Your task to perform on an android device: find snoozed emails in the gmail app Image 0: 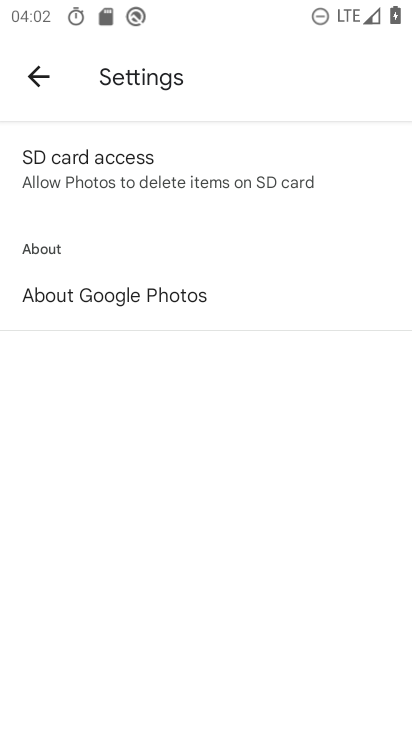
Step 0: press home button
Your task to perform on an android device: find snoozed emails in the gmail app Image 1: 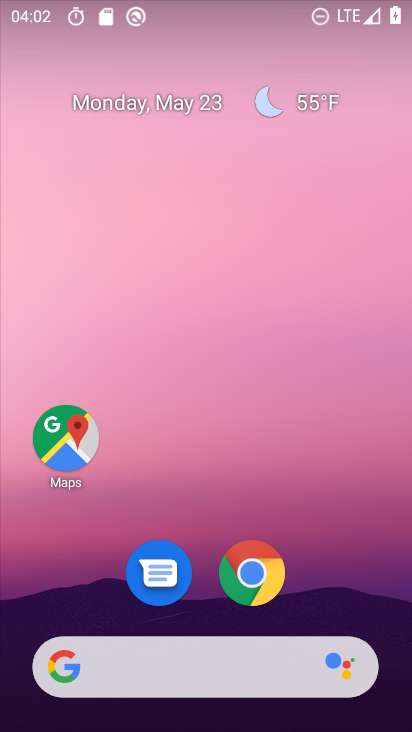
Step 1: drag from (342, 556) to (291, 94)
Your task to perform on an android device: find snoozed emails in the gmail app Image 2: 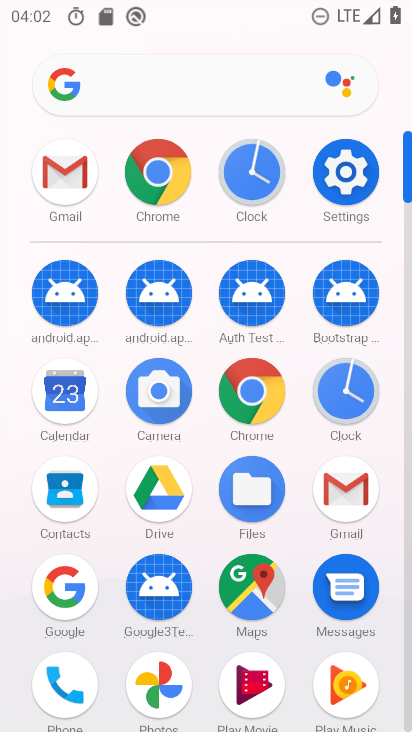
Step 2: click (59, 178)
Your task to perform on an android device: find snoozed emails in the gmail app Image 3: 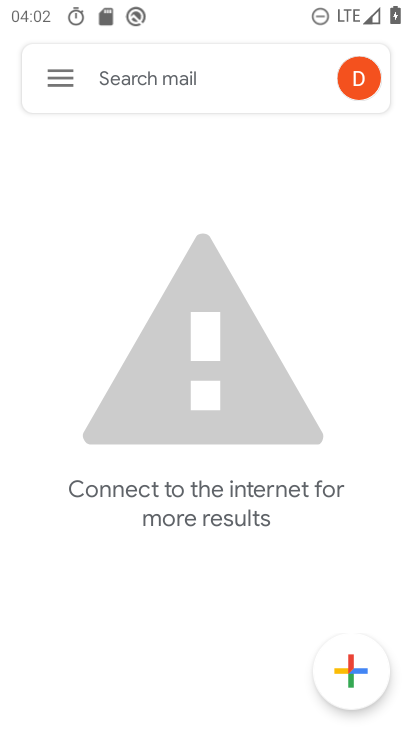
Step 3: click (67, 79)
Your task to perform on an android device: find snoozed emails in the gmail app Image 4: 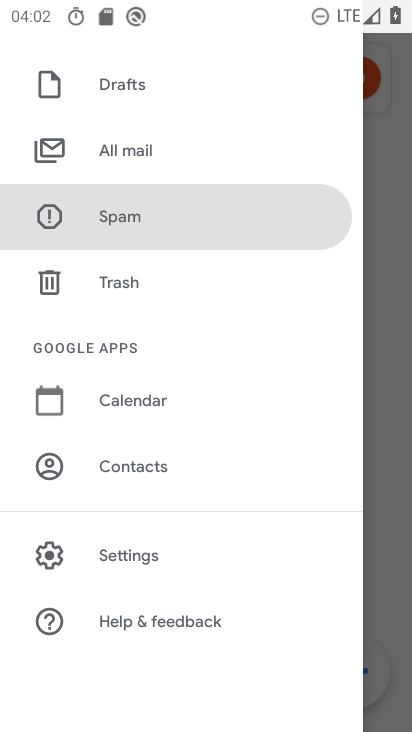
Step 4: drag from (177, 143) to (162, 501)
Your task to perform on an android device: find snoozed emails in the gmail app Image 5: 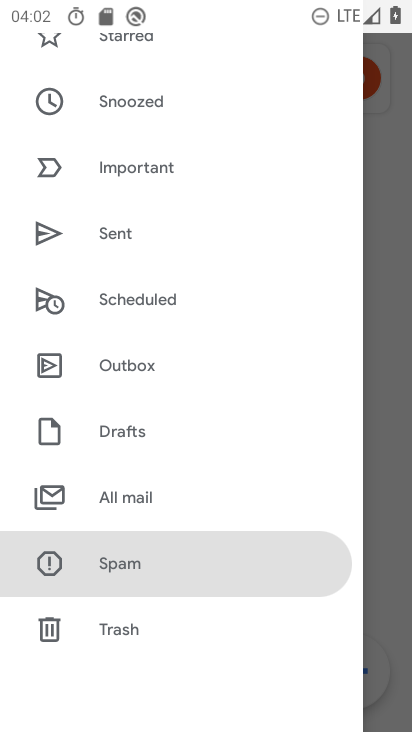
Step 5: click (140, 98)
Your task to perform on an android device: find snoozed emails in the gmail app Image 6: 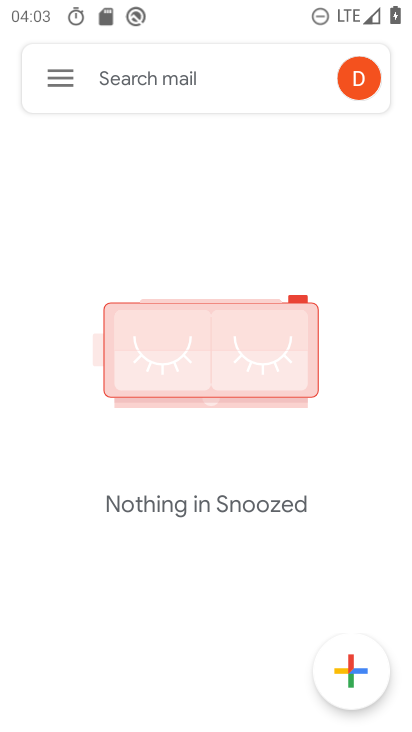
Step 6: task complete